Your task to perform on an android device: check google app version Image 0: 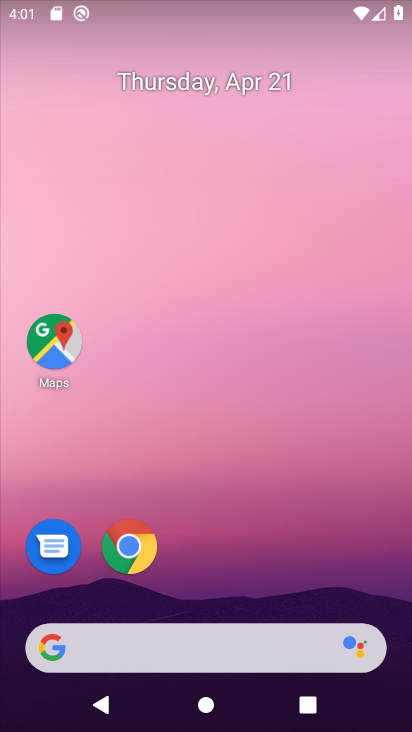
Step 0: click (47, 656)
Your task to perform on an android device: check google app version Image 1: 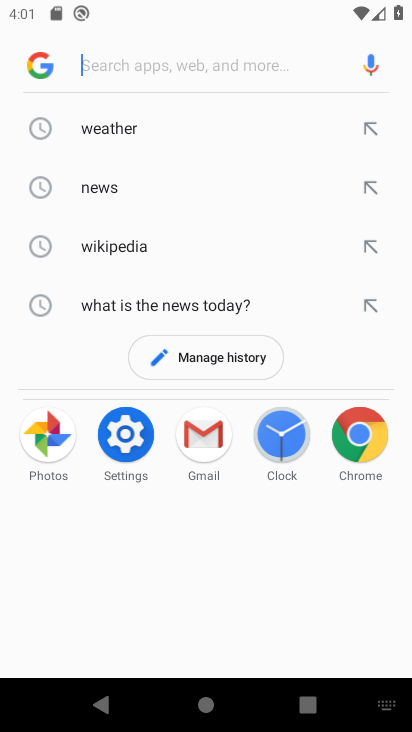
Step 1: click (44, 54)
Your task to perform on an android device: check google app version Image 2: 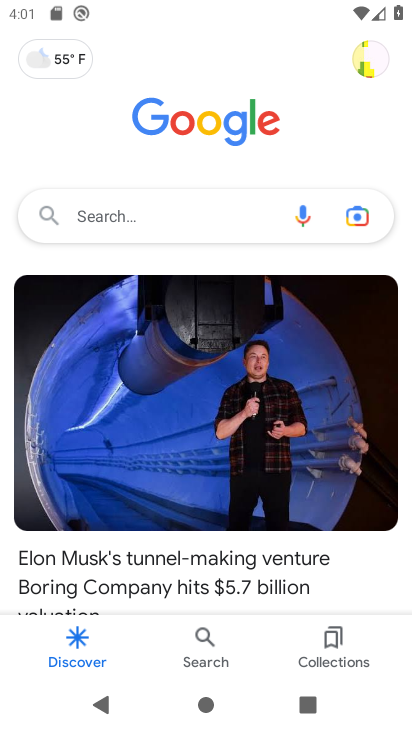
Step 2: click (369, 65)
Your task to perform on an android device: check google app version Image 3: 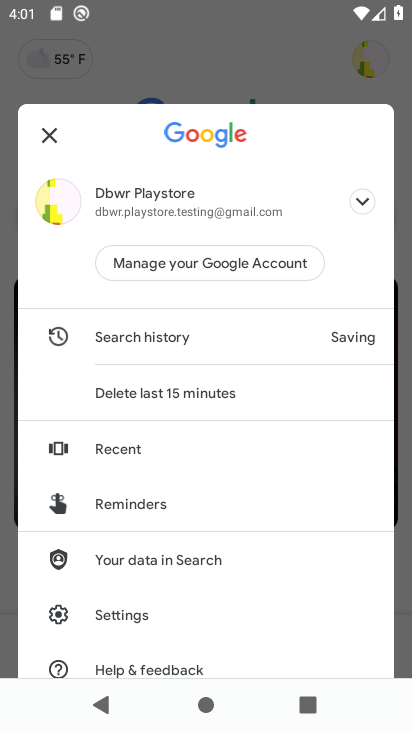
Step 3: click (104, 601)
Your task to perform on an android device: check google app version Image 4: 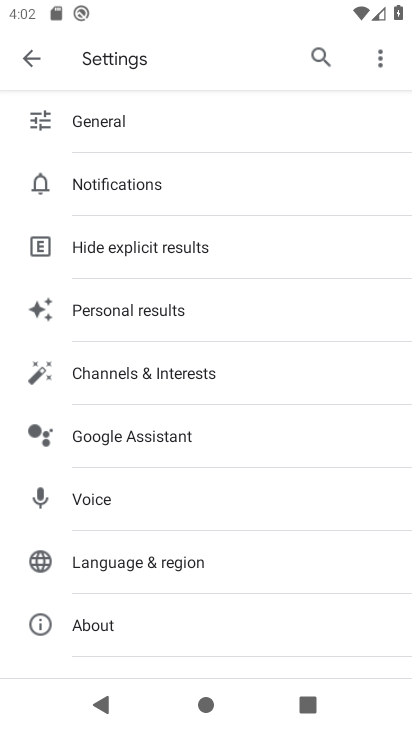
Step 4: click (104, 615)
Your task to perform on an android device: check google app version Image 5: 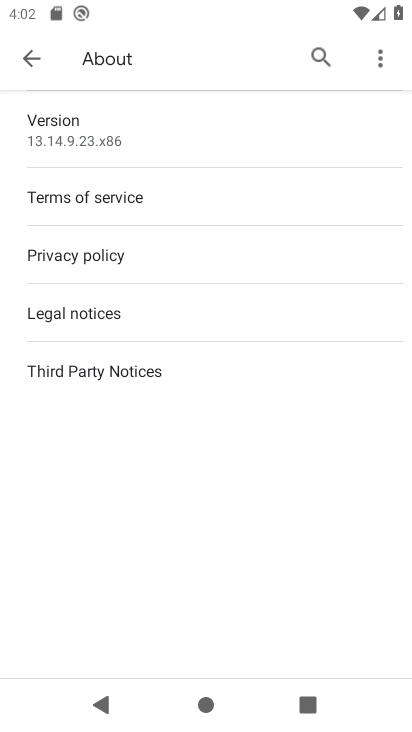
Step 5: task complete